Your task to perform on an android device: toggle location history Image 0: 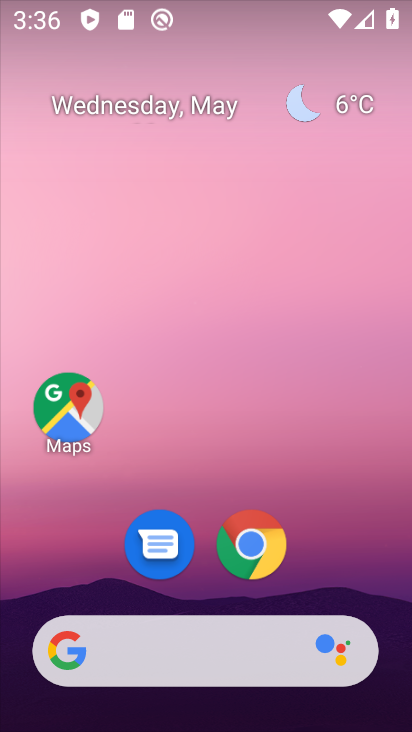
Step 0: drag from (51, 626) to (328, 166)
Your task to perform on an android device: toggle location history Image 1: 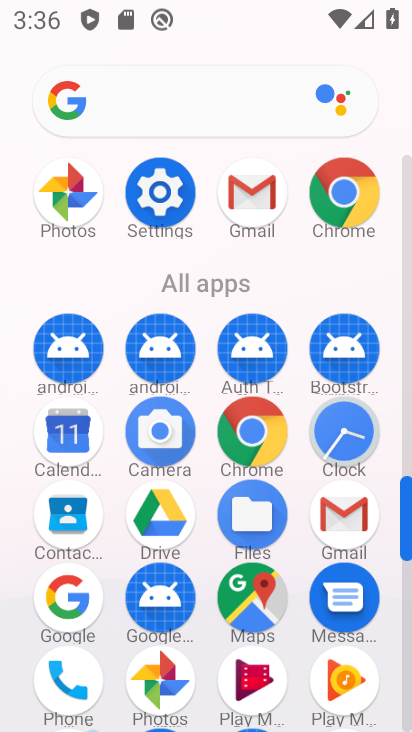
Step 1: click (143, 200)
Your task to perform on an android device: toggle location history Image 2: 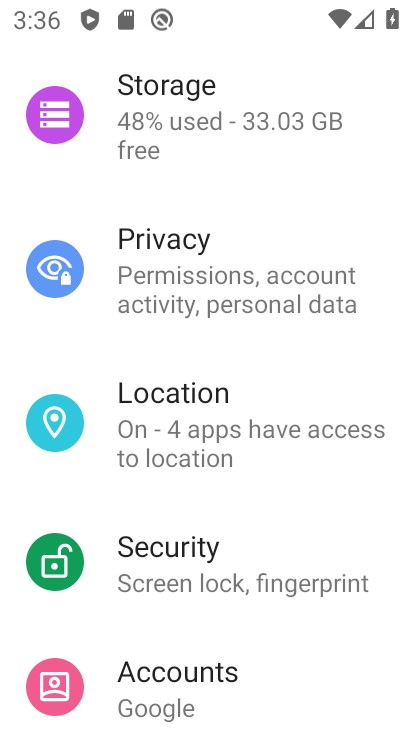
Step 2: click (117, 398)
Your task to perform on an android device: toggle location history Image 3: 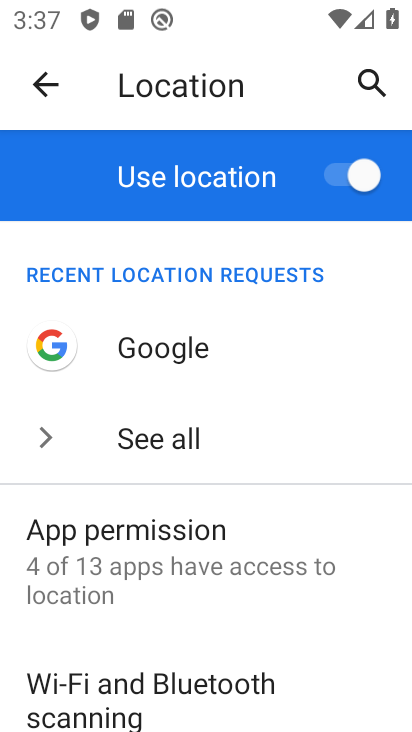
Step 3: drag from (140, 691) to (341, 124)
Your task to perform on an android device: toggle location history Image 4: 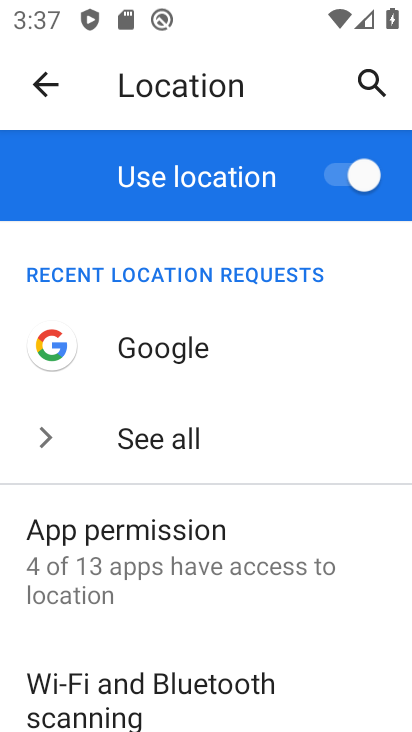
Step 4: drag from (161, 644) to (304, 253)
Your task to perform on an android device: toggle location history Image 5: 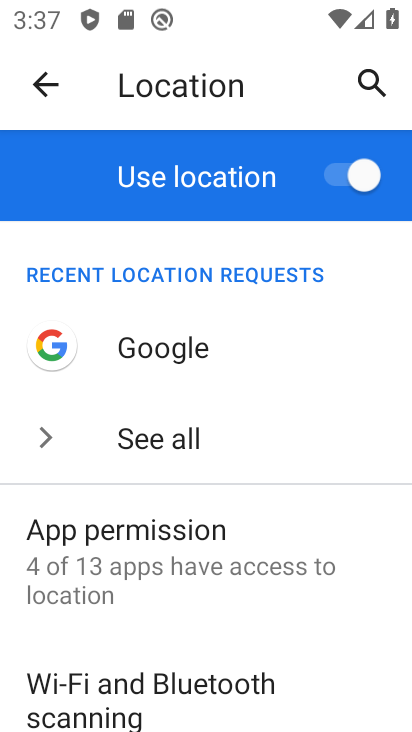
Step 5: drag from (269, 688) to (366, 140)
Your task to perform on an android device: toggle location history Image 6: 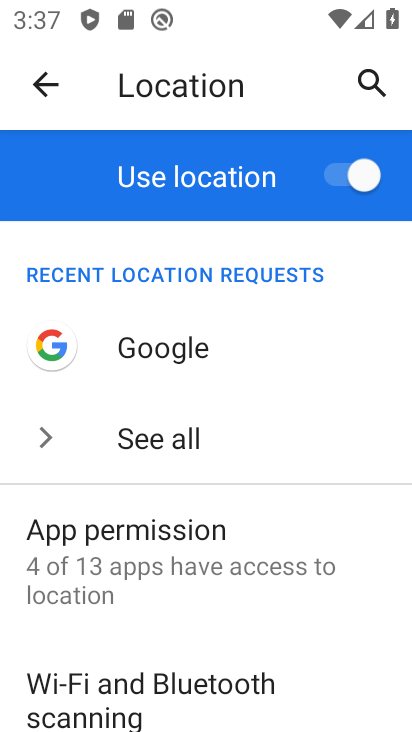
Step 6: drag from (94, 625) to (260, 246)
Your task to perform on an android device: toggle location history Image 7: 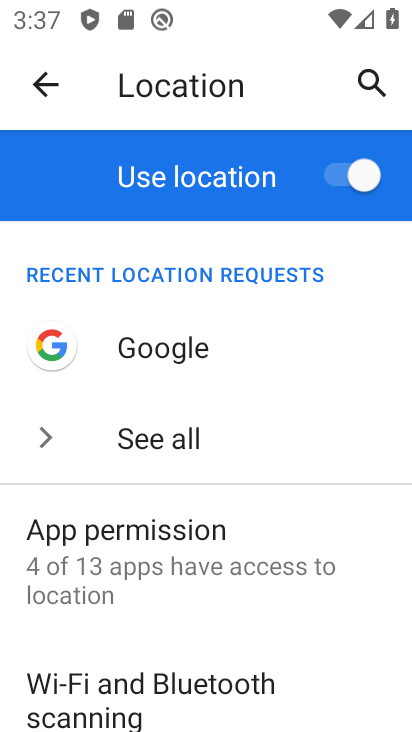
Step 7: drag from (56, 569) to (293, 259)
Your task to perform on an android device: toggle location history Image 8: 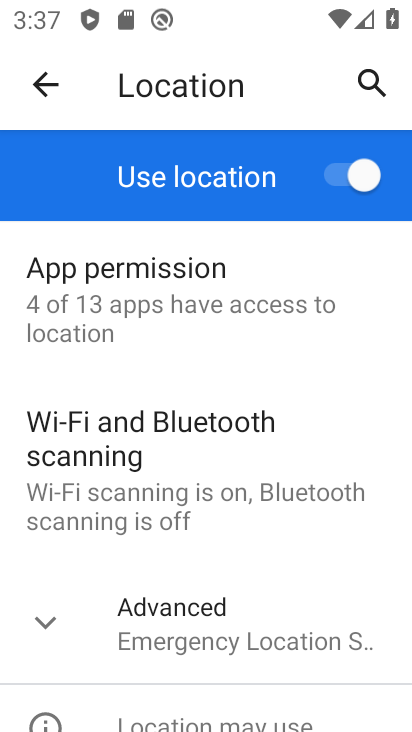
Step 8: click (118, 636)
Your task to perform on an android device: toggle location history Image 9: 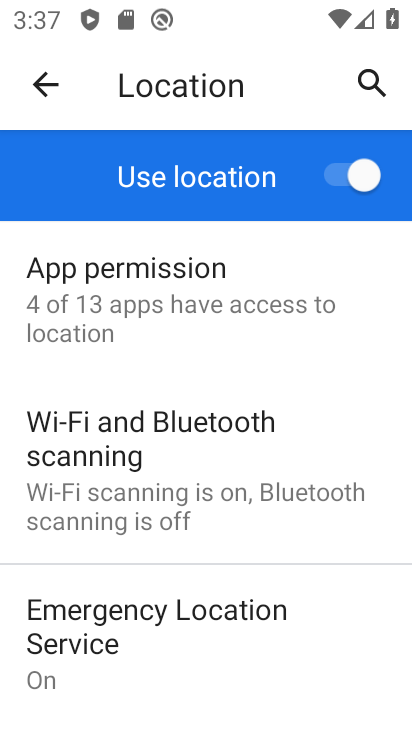
Step 9: drag from (12, 622) to (280, 227)
Your task to perform on an android device: toggle location history Image 10: 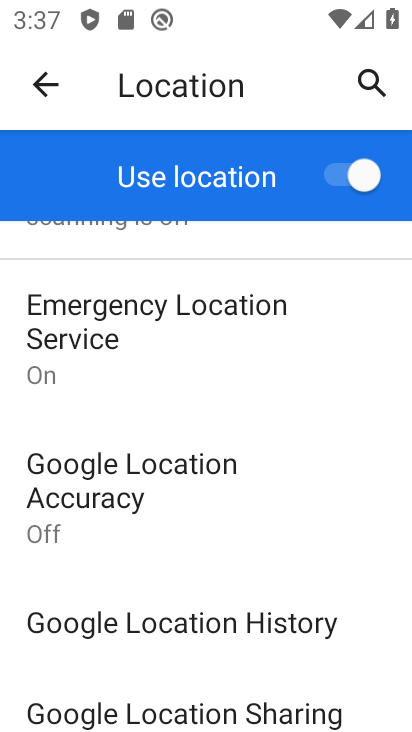
Step 10: click (192, 623)
Your task to perform on an android device: toggle location history Image 11: 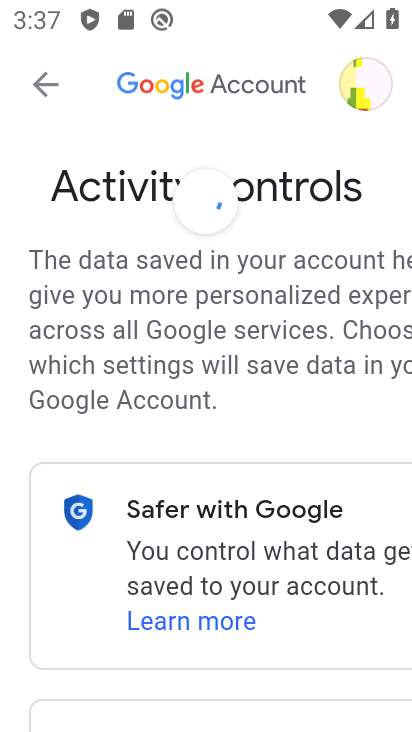
Step 11: drag from (3, 649) to (379, 270)
Your task to perform on an android device: toggle location history Image 12: 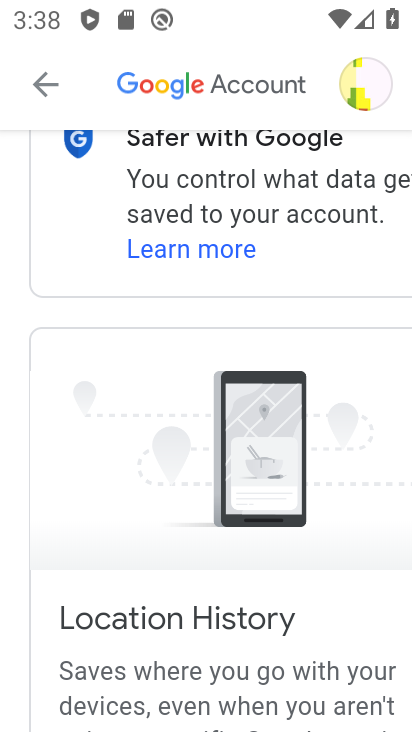
Step 12: drag from (18, 642) to (369, 281)
Your task to perform on an android device: toggle location history Image 13: 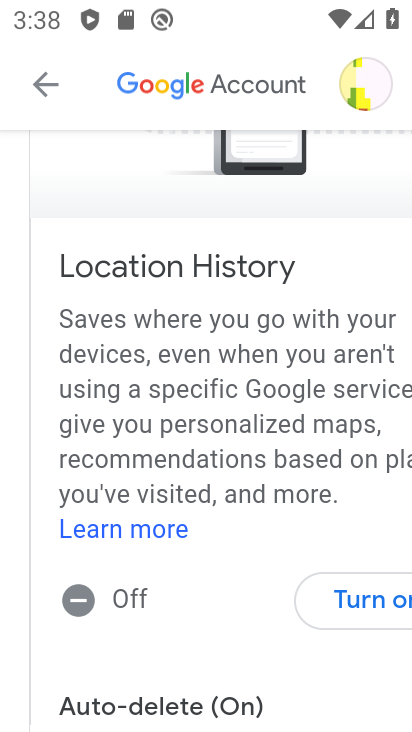
Step 13: click (393, 602)
Your task to perform on an android device: toggle location history Image 14: 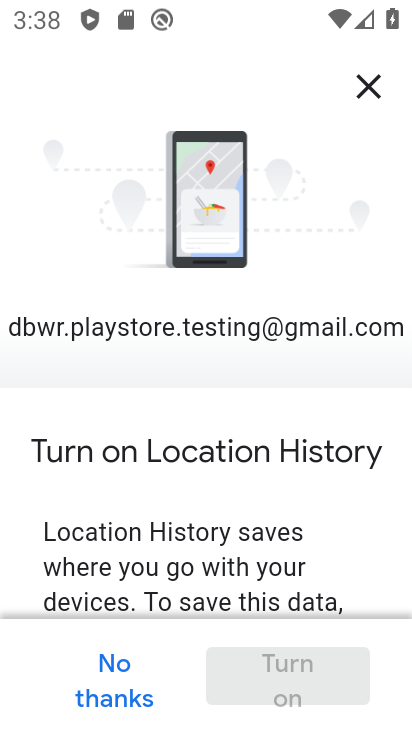
Step 14: drag from (140, 585) to (402, 272)
Your task to perform on an android device: toggle location history Image 15: 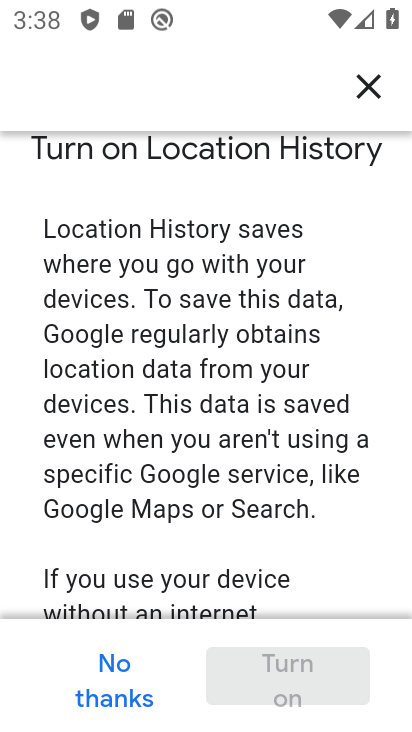
Step 15: drag from (164, 542) to (410, 202)
Your task to perform on an android device: toggle location history Image 16: 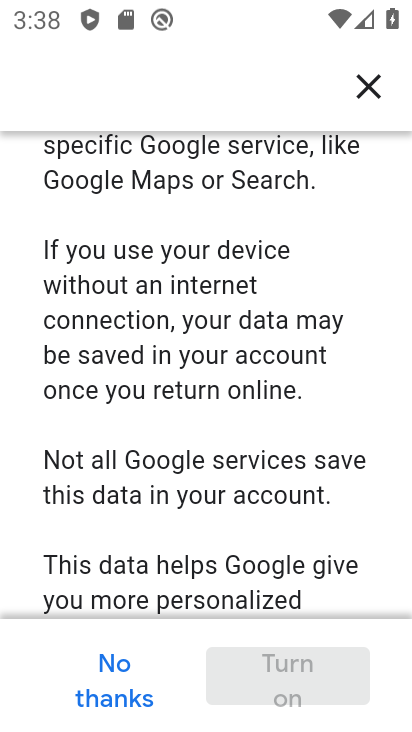
Step 16: drag from (159, 617) to (377, 269)
Your task to perform on an android device: toggle location history Image 17: 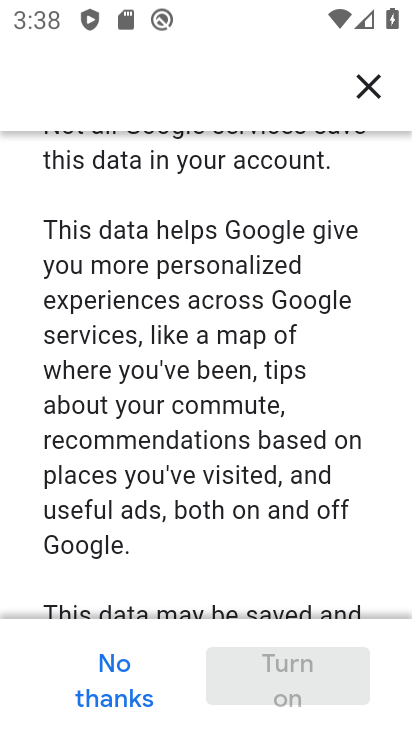
Step 17: drag from (146, 552) to (411, 193)
Your task to perform on an android device: toggle location history Image 18: 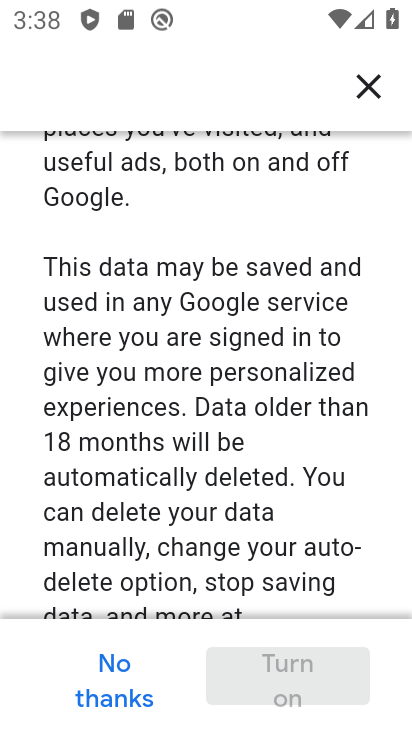
Step 18: drag from (61, 553) to (411, 160)
Your task to perform on an android device: toggle location history Image 19: 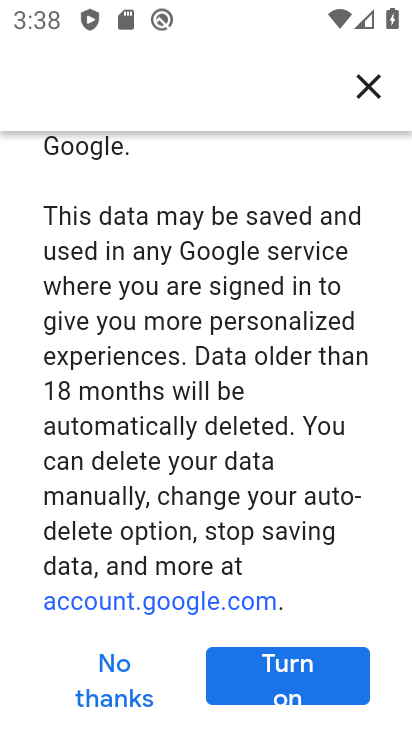
Step 19: click (327, 688)
Your task to perform on an android device: toggle location history Image 20: 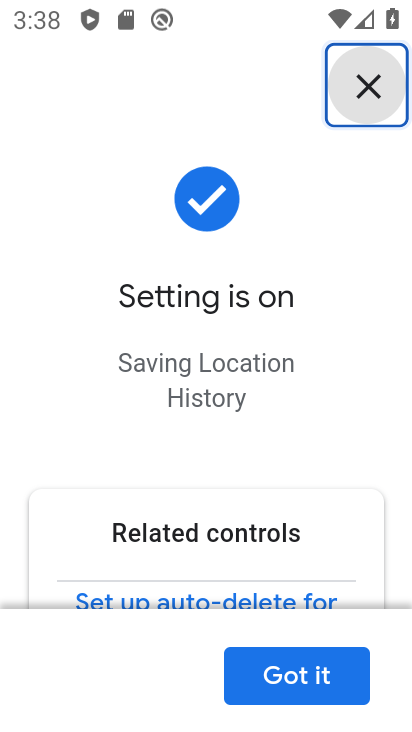
Step 20: click (300, 691)
Your task to perform on an android device: toggle location history Image 21: 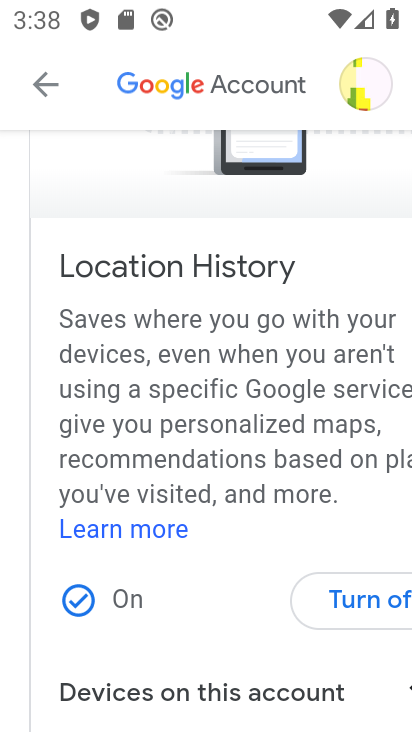
Step 21: task complete